Your task to perform on an android device: turn on showing notifications on the lock screen Image 0: 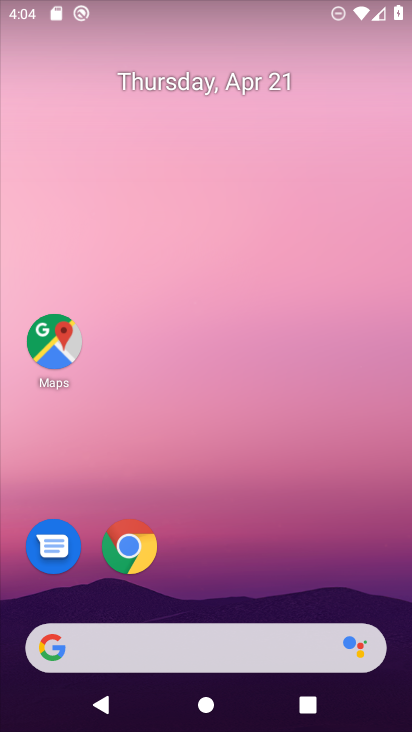
Step 0: drag from (120, 595) to (184, 53)
Your task to perform on an android device: turn on showing notifications on the lock screen Image 1: 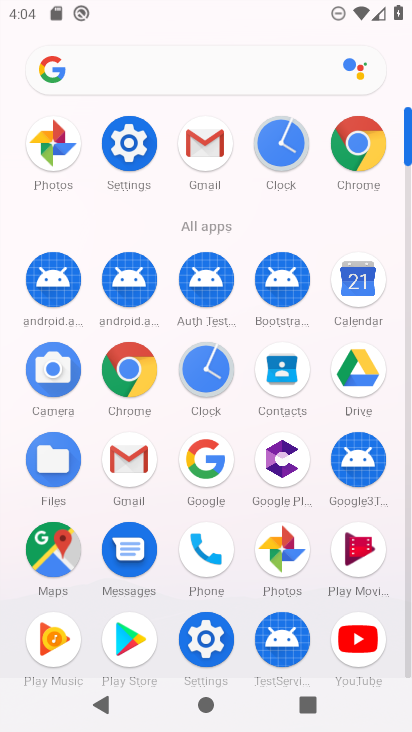
Step 1: click (122, 121)
Your task to perform on an android device: turn on showing notifications on the lock screen Image 2: 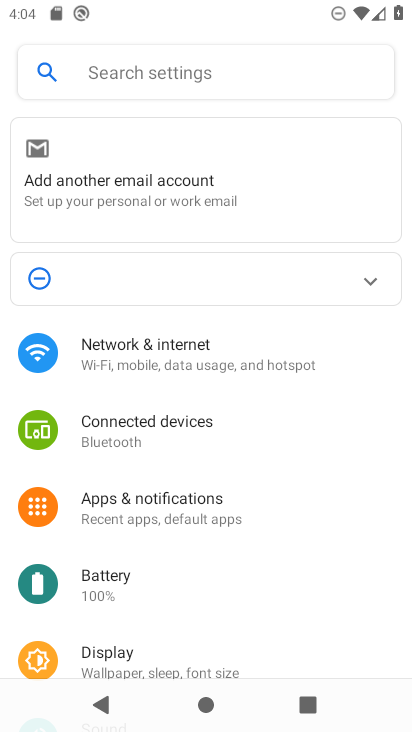
Step 2: click (183, 519)
Your task to perform on an android device: turn on showing notifications on the lock screen Image 3: 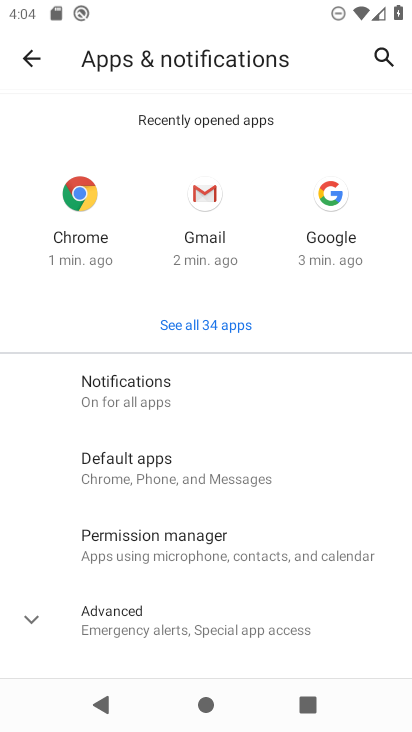
Step 3: click (112, 416)
Your task to perform on an android device: turn on showing notifications on the lock screen Image 4: 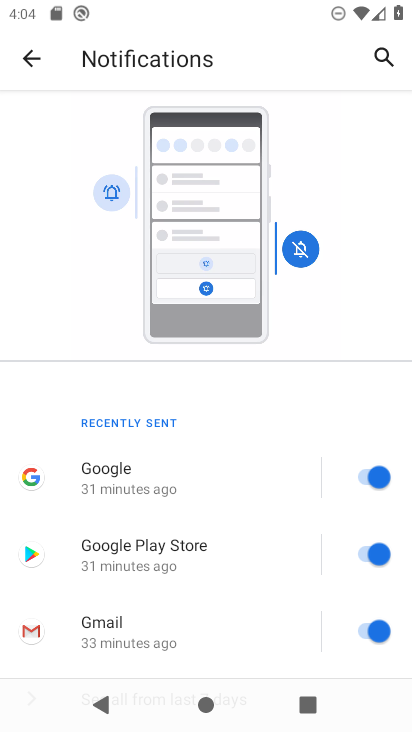
Step 4: drag from (165, 676) to (258, 72)
Your task to perform on an android device: turn on showing notifications on the lock screen Image 5: 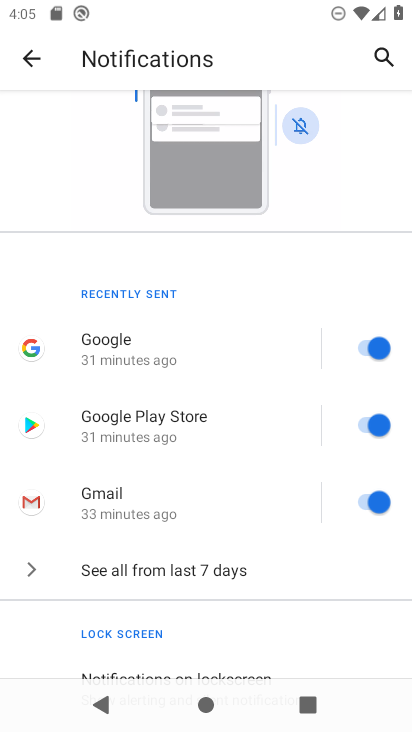
Step 5: drag from (97, 582) to (95, 311)
Your task to perform on an android device: turn on showing notifications on the lock screen Image 6: 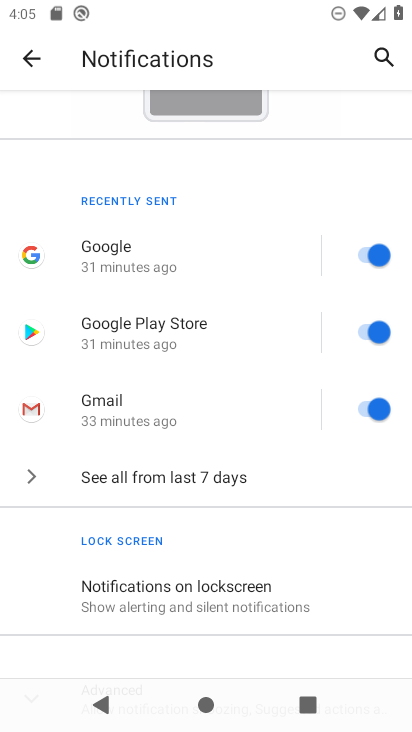
Step 6: click (202, 614)
Your task to perform on an android device: turn on showing notifications on the lock screen Image 7: 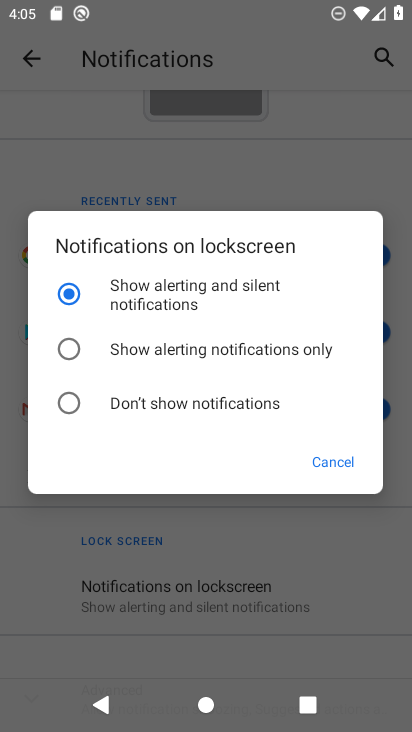
Step 7: task complete